Your task to perform on an android device: turn on the 12-hour format for clock Image 0: 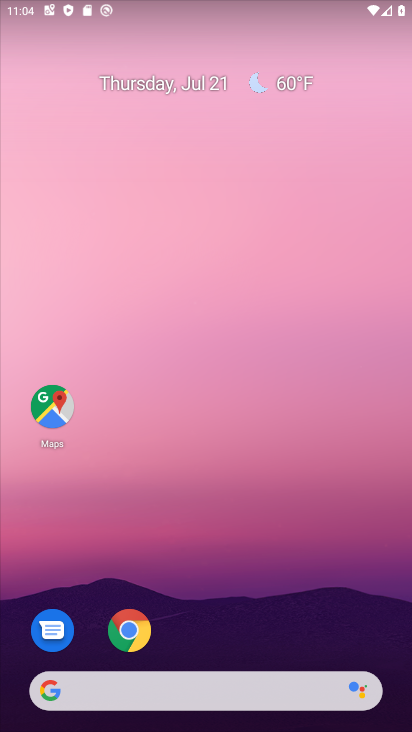
Step 0: drag from (320, 269) to (338, 163)
Your task to perform on an android device: turn on the 12-hour format for clock Image 1: 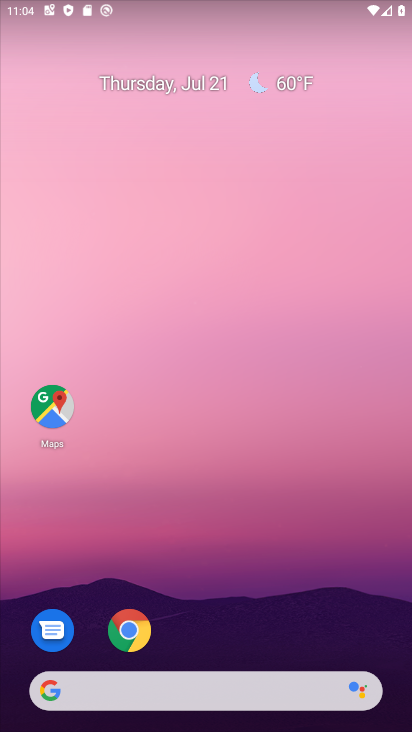
Step 1: drag from (169, 692) to (353, 94)
Your task to perform on an android device: turn on the 12-hour format for clock Image 2: 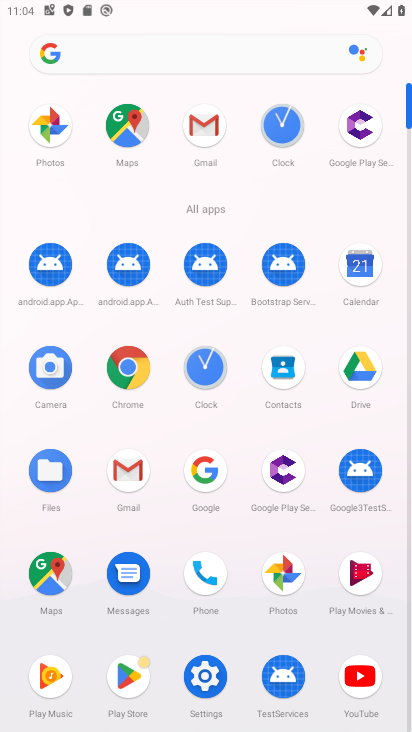
Step 2: click (276, 128)
Your task to perform on an android device: turn on the 12-hour format for clock Image 3: 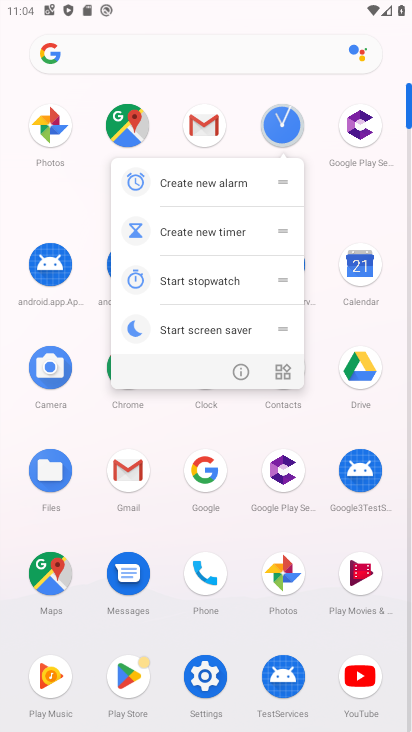
Step 3: click (286, 124)
Your task to perform on an android device: turn on the 12-hour format for clock Image 4: 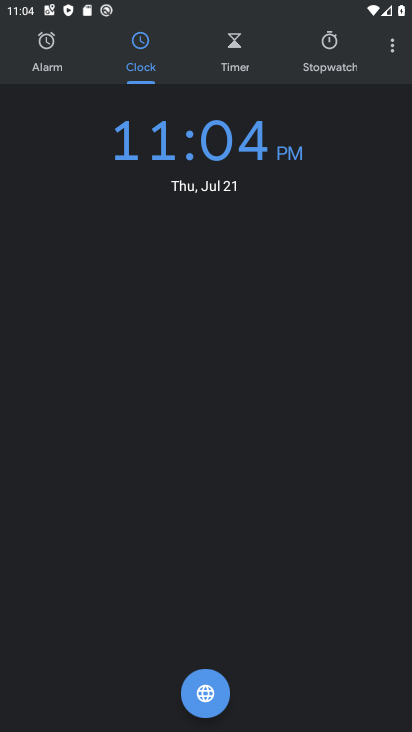
Step 4: click (386, 51)
Your task to perform on an android device: turn on the 12-hour format for clock Image 5: 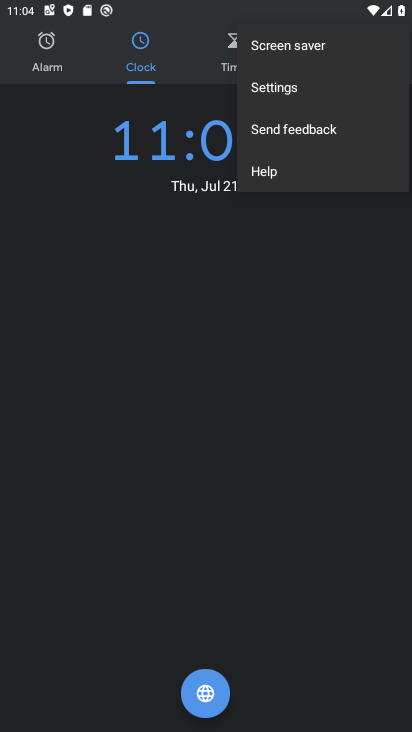
Step 5: click (283, 84)
Your task to perform on an android device: turn on the 12-hour format for clock Image 6: 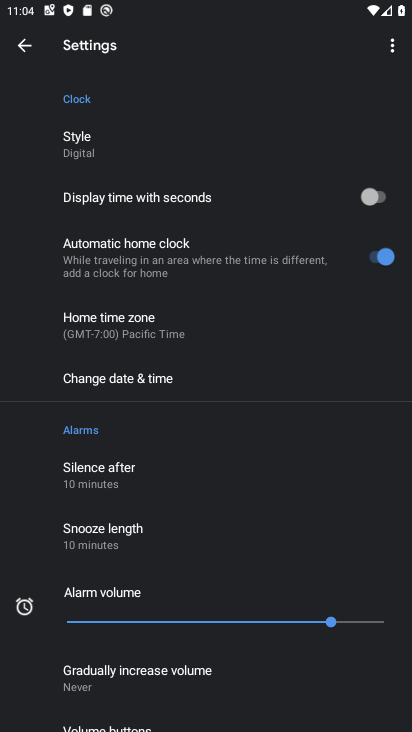
Step 6: click (156, 378)
Your task to perform on an android device: turn on the 12-hour format for clock Image 7: 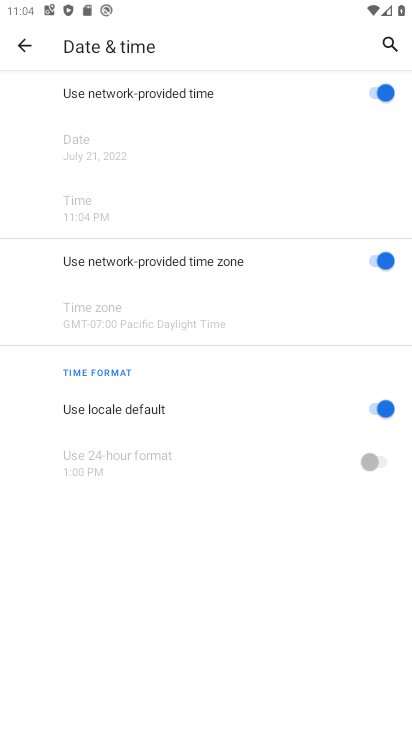
Step 7: task complete